Your task to perform on an android device: delete browsing data in the chrome app Image 0: 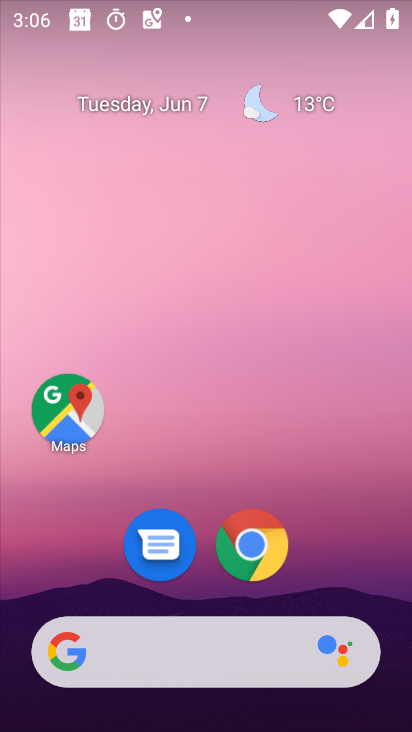
Step 0: click (254, 539)
Your task to perform on an android device: delete browsing data in the chrome app Image 1: 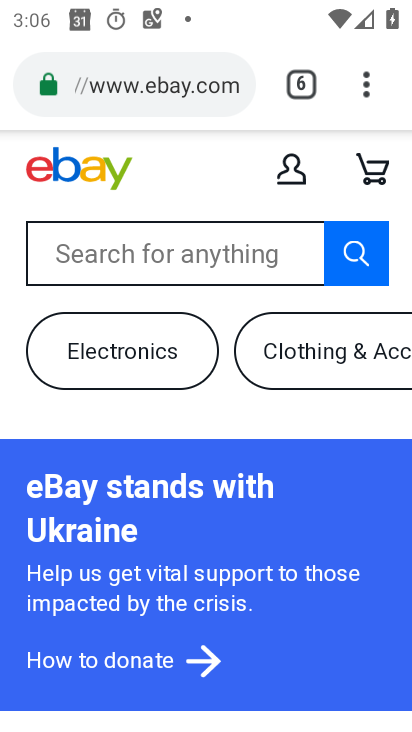
Step 1: click (376, 88)
Your task to perform on an android device: delete browsing data in the chrome app Image 2: 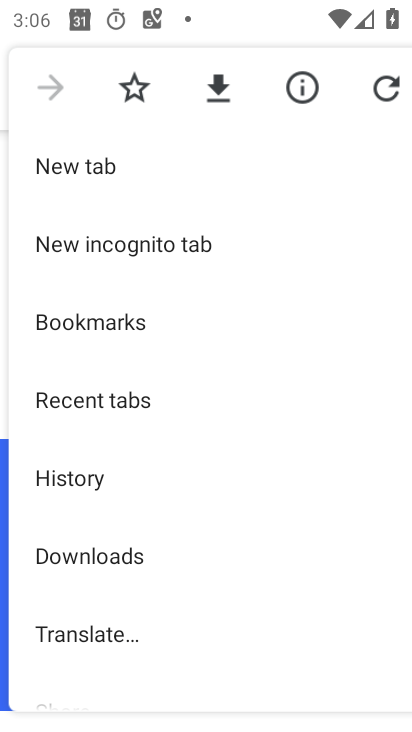
Step 2: click (124, 470)
Your task to perform on an android device: delete browsing data in the chrome app Image 3: 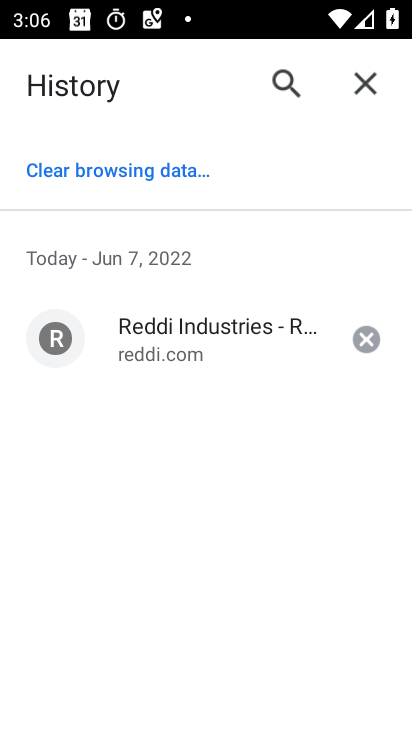
Step 3: click (92, 179)
Your task to perform on an android device: delete browsing data in the chrome app Image 4: 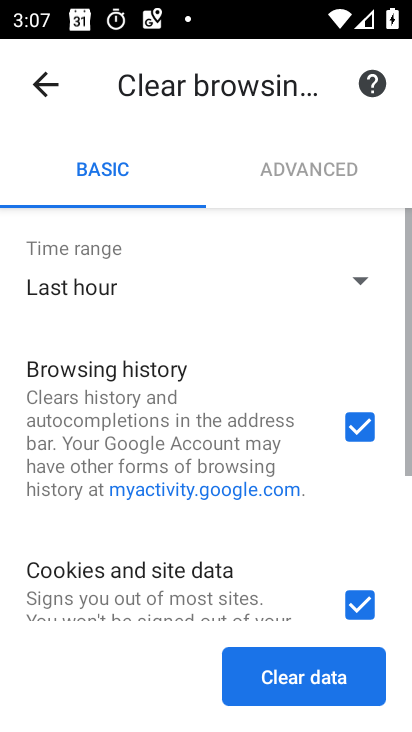
Step 4: click (288, 664)
Your task to perform on an android device: delete browsing data in the chrome app Image 5: 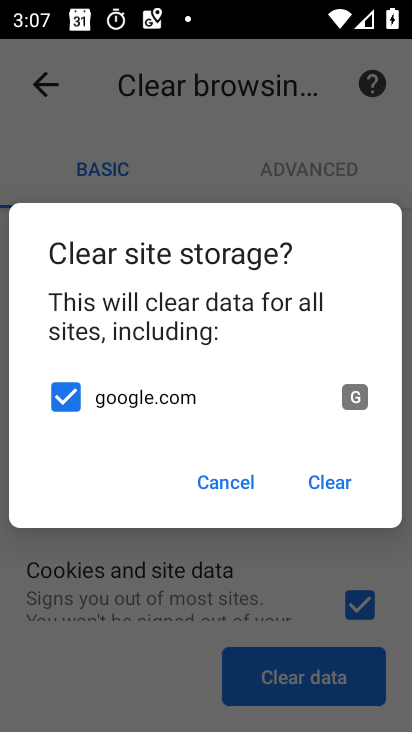
Step 5: click (316, 474)
Your task to perform on an android device: delete browsing data in the chrome app Image 6: 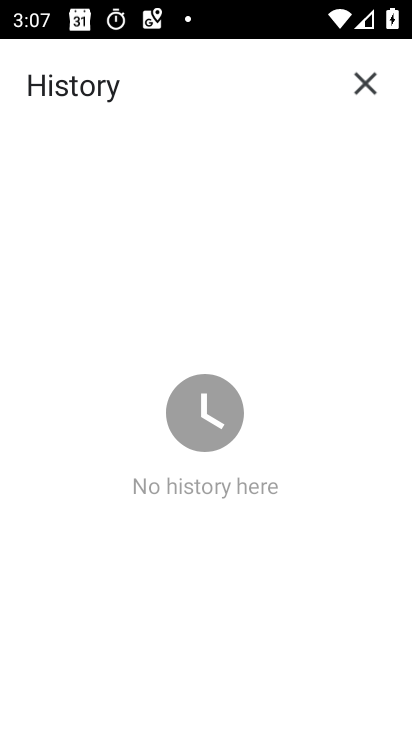
Step 6: task complete